Your task to perform on an android device: check the backup settings in the google photos Image 0: 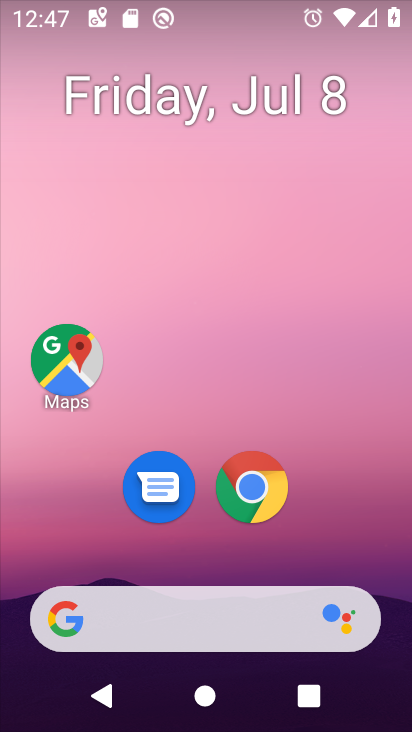
Step 0: drag from (361, 540) to (373, 182)
Your task to perform on an android device: check the backup settings in the google photos Image 1: 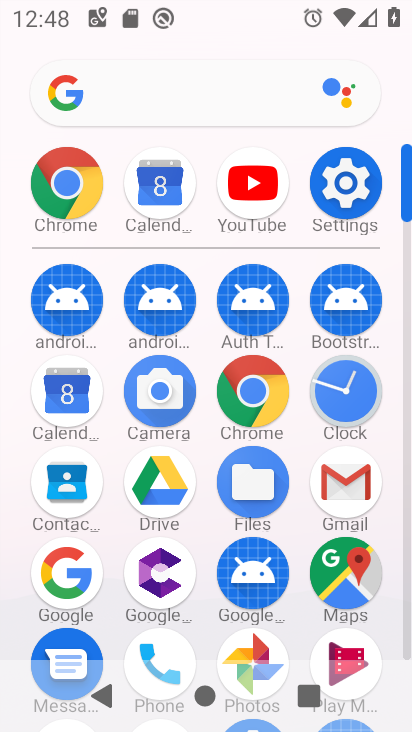
Step 1: drag from (384, 530) to (385, 344)
Your task to perform on an android device: check the backup settings in the google photos Image 2: 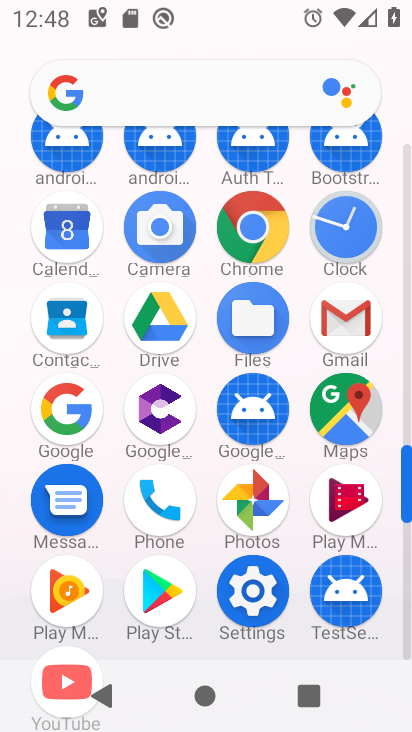
Step 2: click (271, 494)
Your task to perform on an android device: check the backup settings in the google photos Image 3: 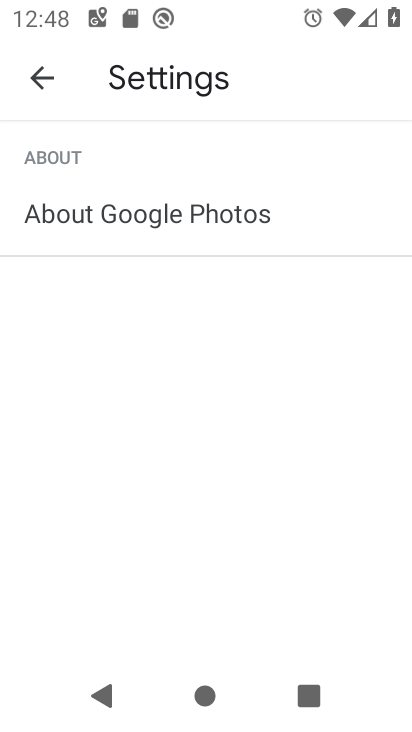
Step 3: press back button
Your task to perform on an android device: check the backup settings in the google photos Image 4: 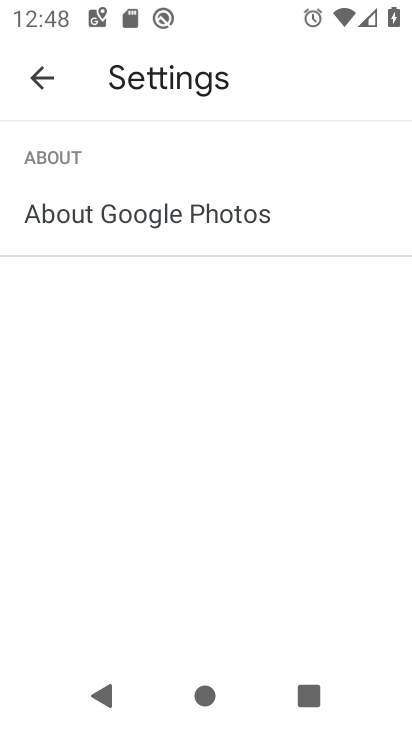
Step 4: press back button
Your task to perform on an android device: check the backup settings in the google photos Image 5: 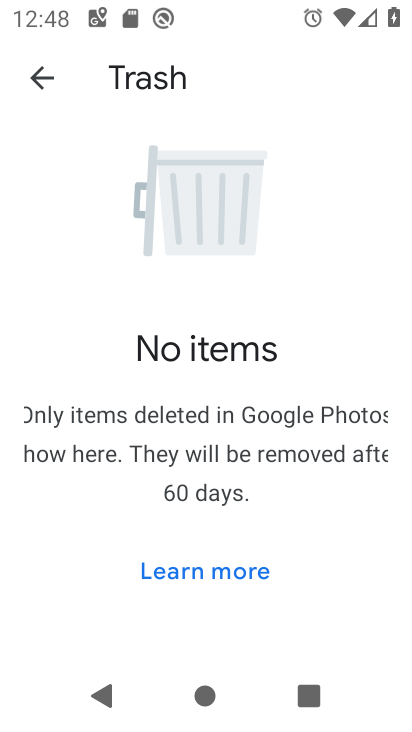
Step 5: press back button
Your task to perform on an android device: check the backup settings in the google photos Image 6: 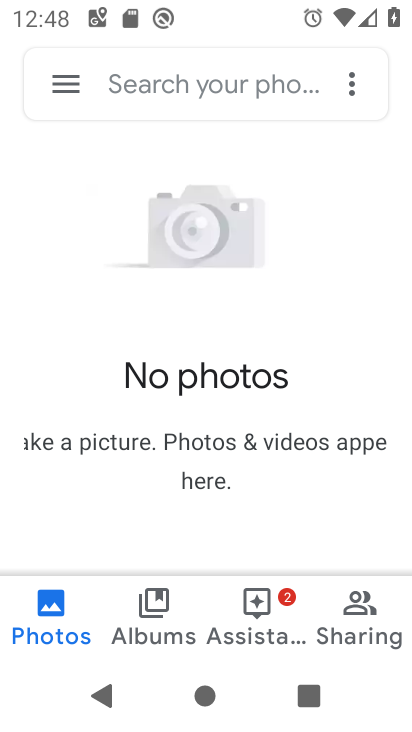
Step 6: click (63, 78)
Your task to perform on an android device: check the backup settings in the google photos Image 7: 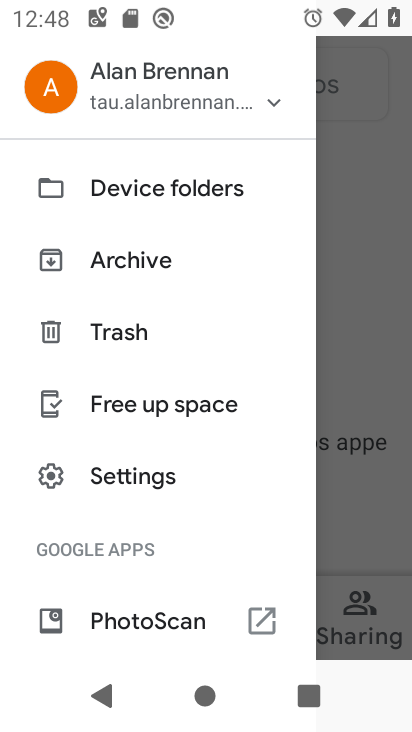
Step 7: click (217, 488)
Your task to perform on an android device: check the backup settings in the google photos Image 8: 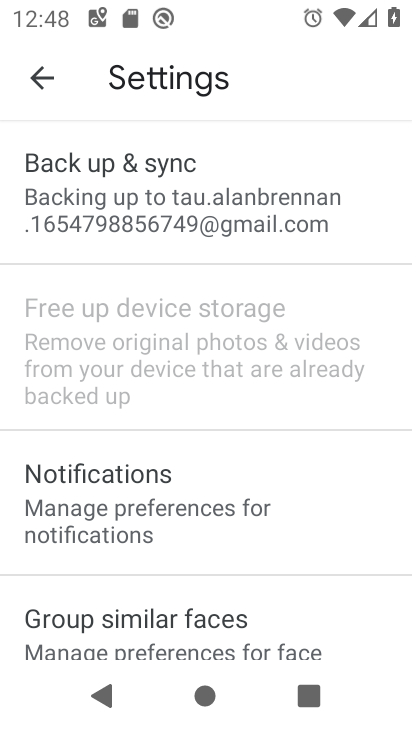
Step 8: click (265, 214)
Your task to perform on an android device: check the backup settings in the google photos Image 9: 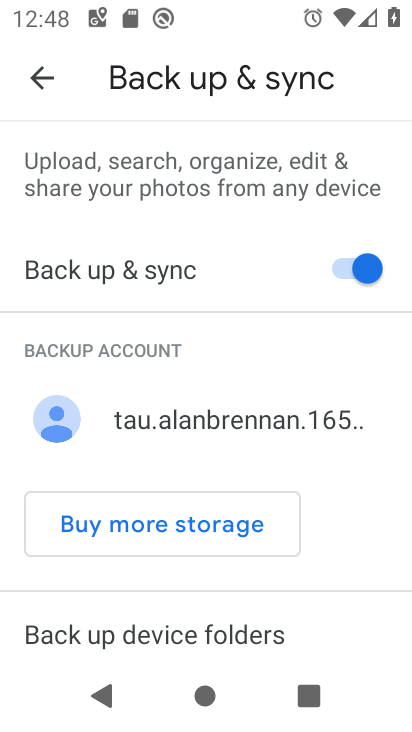
Step 9: task complete